Your task to perform on an android device: turn off smart reply in the gmail app Image 0: 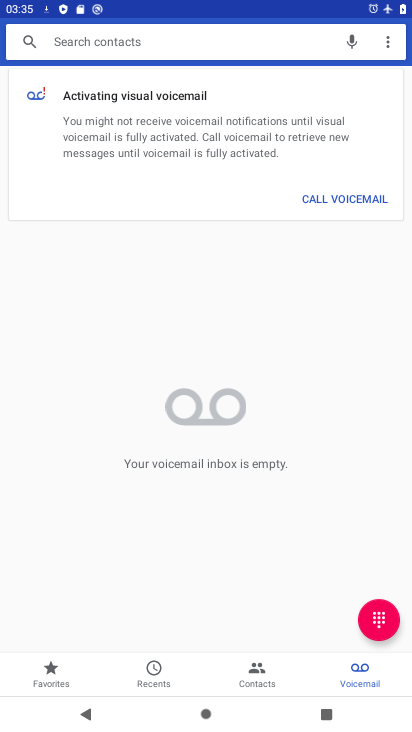
Step 0: press home button
Your task to perform on an android device: turn off smart reply in the gmail app Image 1: 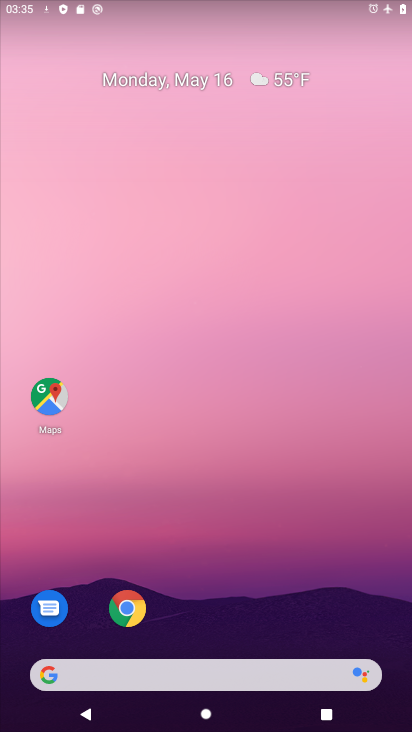
Step 1: drag from (193, 637) to (199, 155)
Your task to perform on an android device: turn off smart reply in the gmail app Image 2: 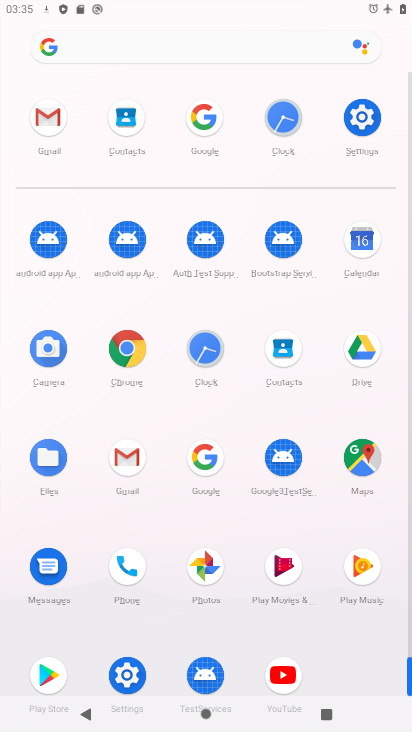
Step 2: click (64, 116)
Your task to perform on an android device: turn off smart reply in the gmail app Image 3: 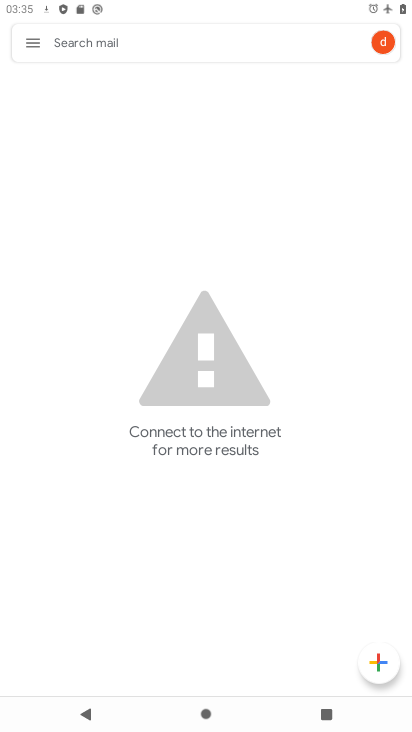
Step 3: click (38, 38)
Your task to perform on an android device: turn off smart reply in the gmail app Image 4: 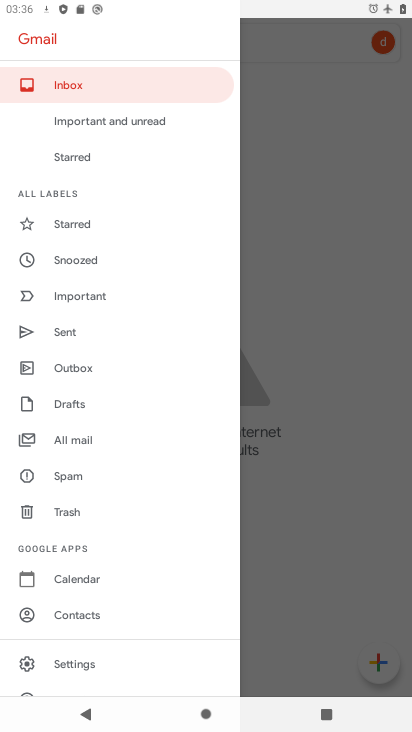
Step 4: click (95, 665)
Your task to perform on an android device: turn off smart reply in the gmail app Image 5: 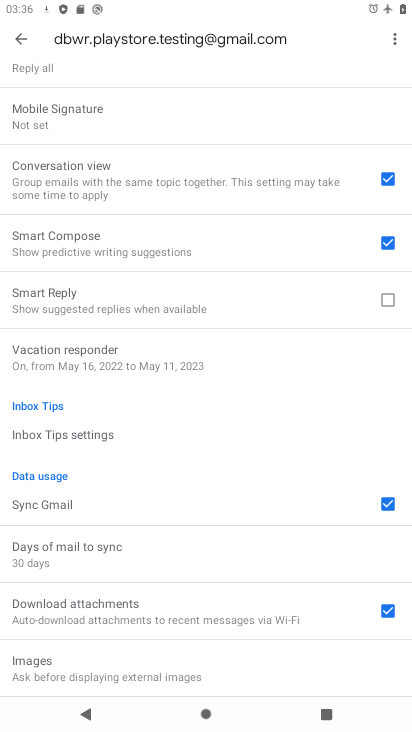
Step 5: task complete